Your task to perform on an android device: Turn on the flashlight Image 0: 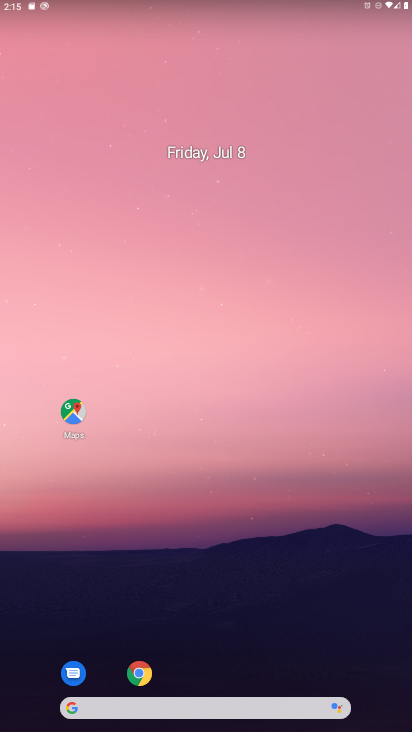
Step 0: drag from (372, 544) to (343, 166)
Your task to perform on an android device: Turn on the flashlight Image 1: 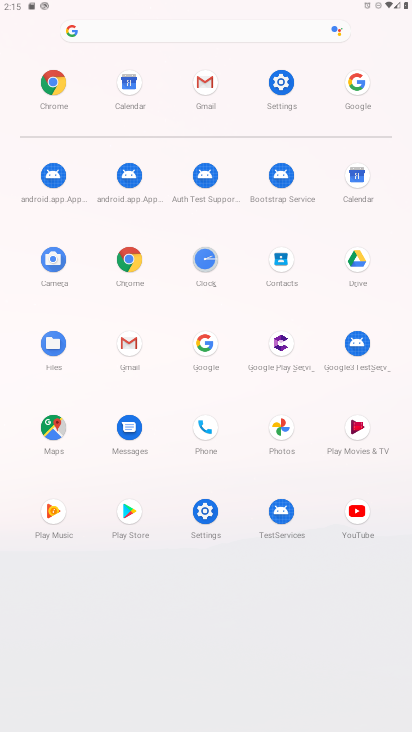
Step 1: click (274, 92)
Your task to perform on an android device: Turn on the flashlight Image 2: 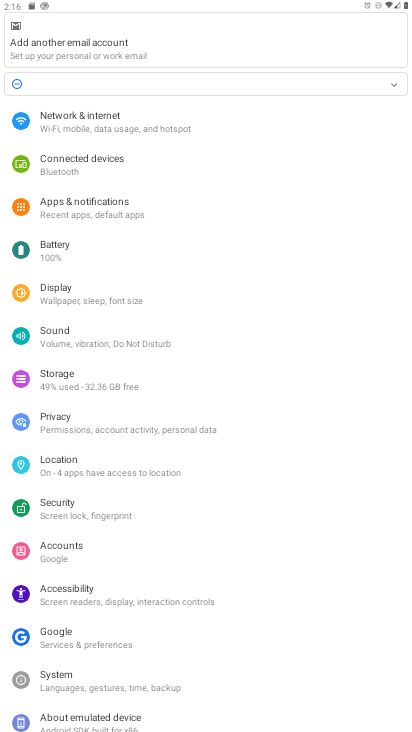
Step 2: click (95, 288)
Your task to perform on an android device: Turn on the flashlight Image 3: 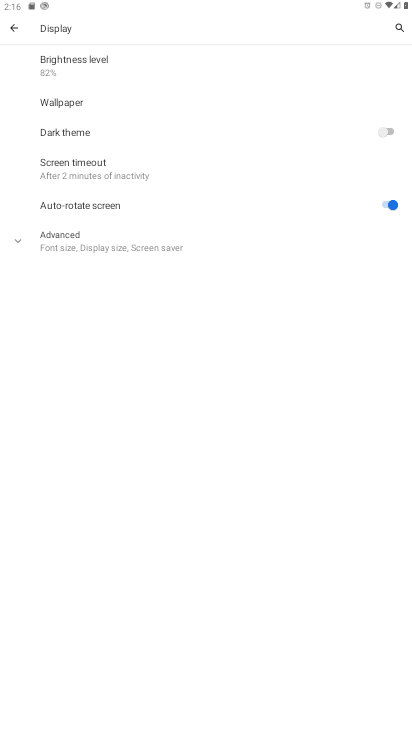
Step 3: task complete